Your task to perform on an android device: Open network settings Image 0: 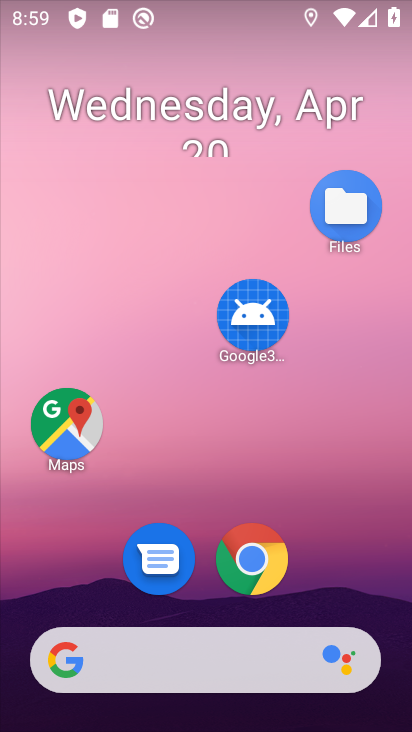
Step 0: drag from (198, 611) to (258, 29)
Your task to perform on an android device: Open network settings Image 1: 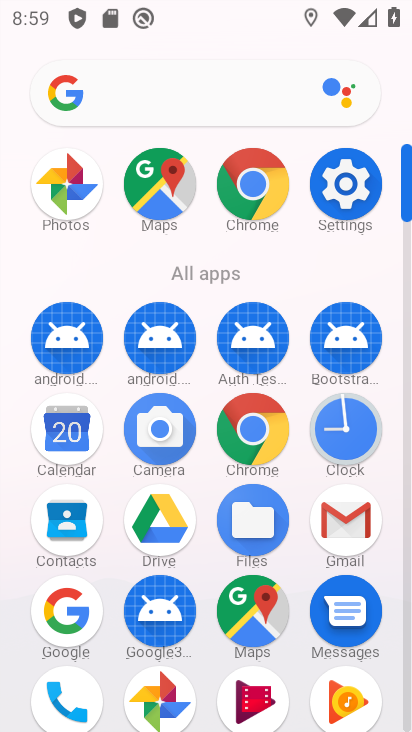
Step 1: click (344, 186)
Your task to perform on an android device: Open network settings Image 2: 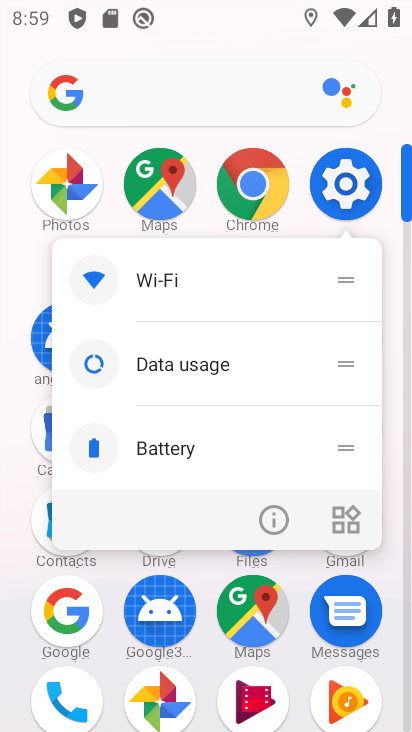
Step 2: click (346, 186)
Your task to perform on an android device: Open network settings Image 3: 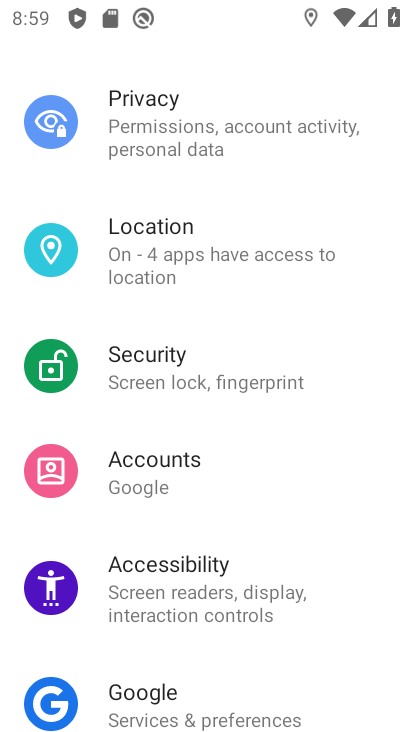
Step 3: drag from (283, 145) to (277, 556)
Your task to perform on an android device: Open network settings Image 4: 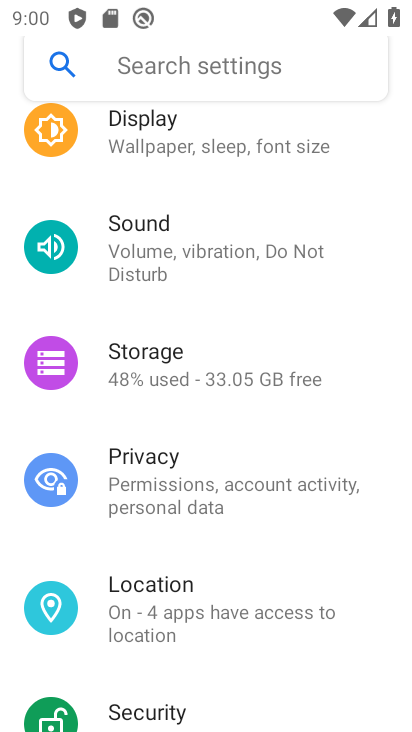
Step 4: drag from (276, 286) to (233, 493)
Your task to perform on an android device: Open network settings Image 5: 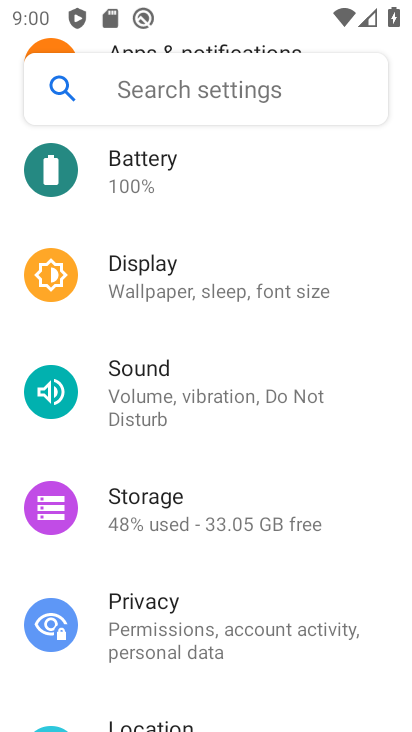
Step 5: drag from (244, 237) to (193, 514)
Your task to perform on an android device: Open network settings Image 6: 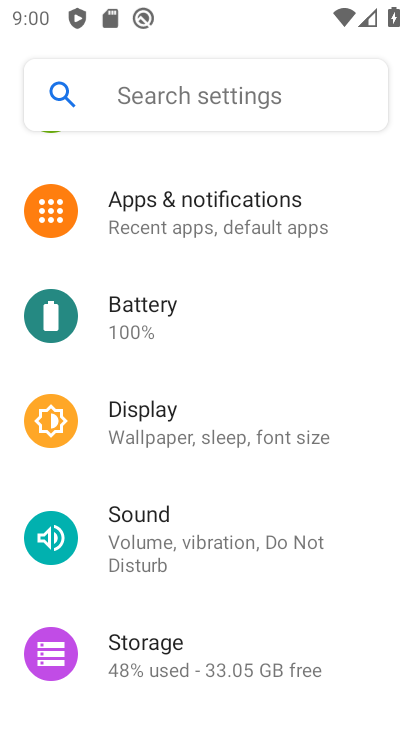
Step 6: drag from (226, 224) to (144, 611)
Your task to perform on an android device: Open network settings Image 7: 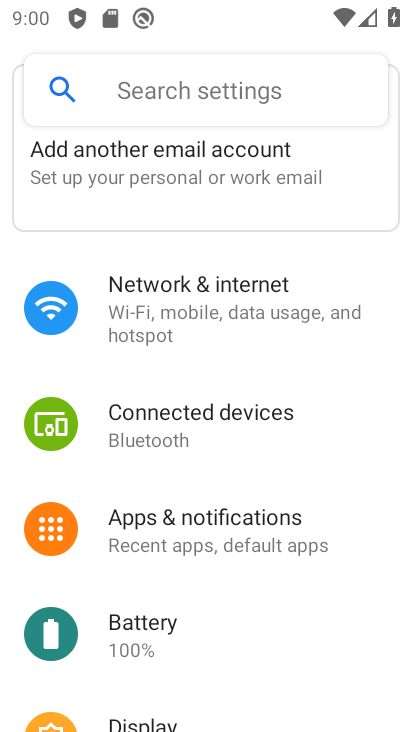
Step 7: click (238, 308)
Your task to perform on an android device: Open network settings Image 8: 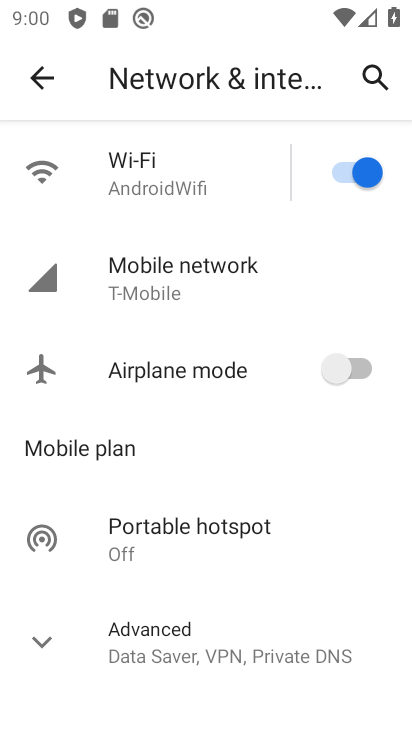
Step 8: task complete